Your task to perform on an android device: Do I have any events today? Image 0: 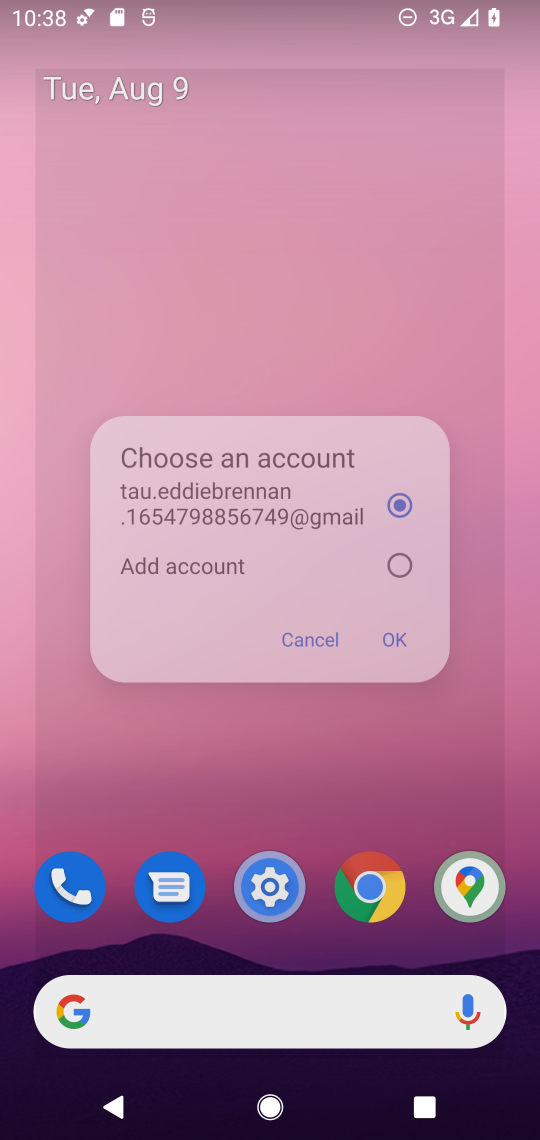
Step 0: drag from (255, 817) to (255, 238)
Your task to perform on an android device: Do I have any events today? Image 1: 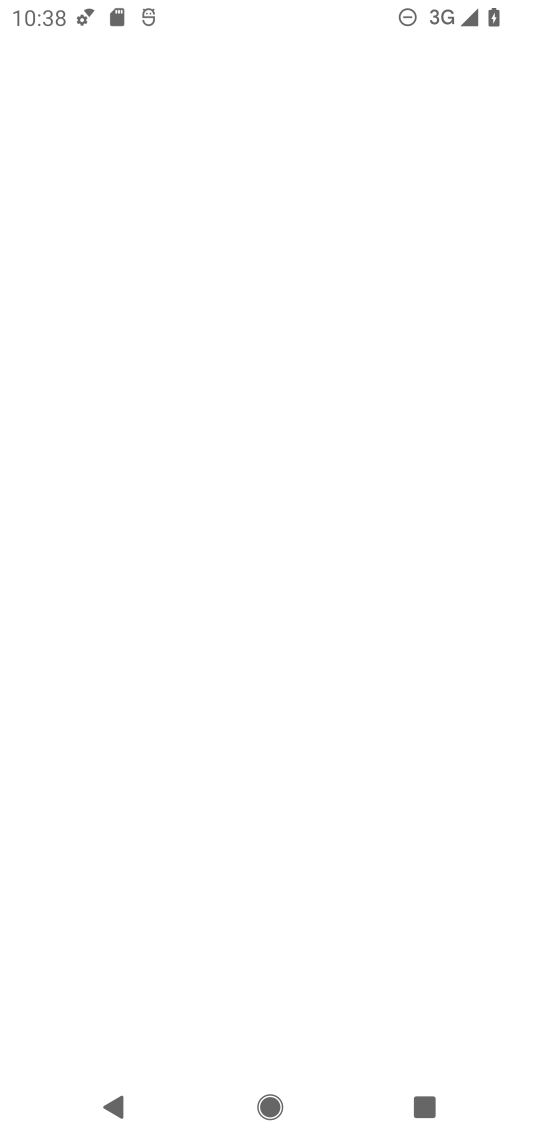
Step 1: press home button
Your task to perform on an android device: Do I have any events today? Image 2: 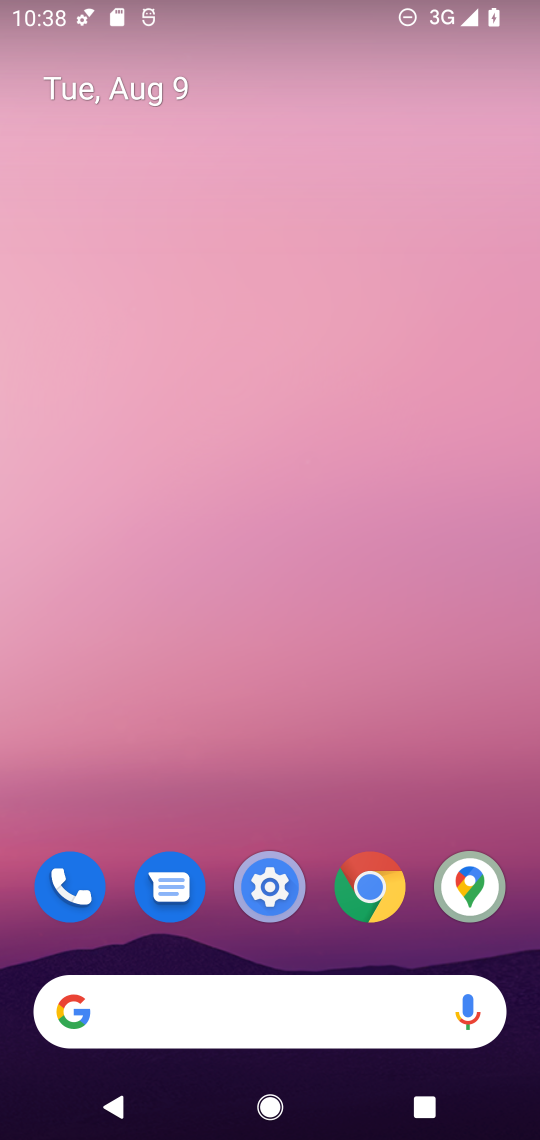
Step 2: drag from (368, 739) to (326, 20)
Your task to perform on an android device: Do I have any events today? Image 3: 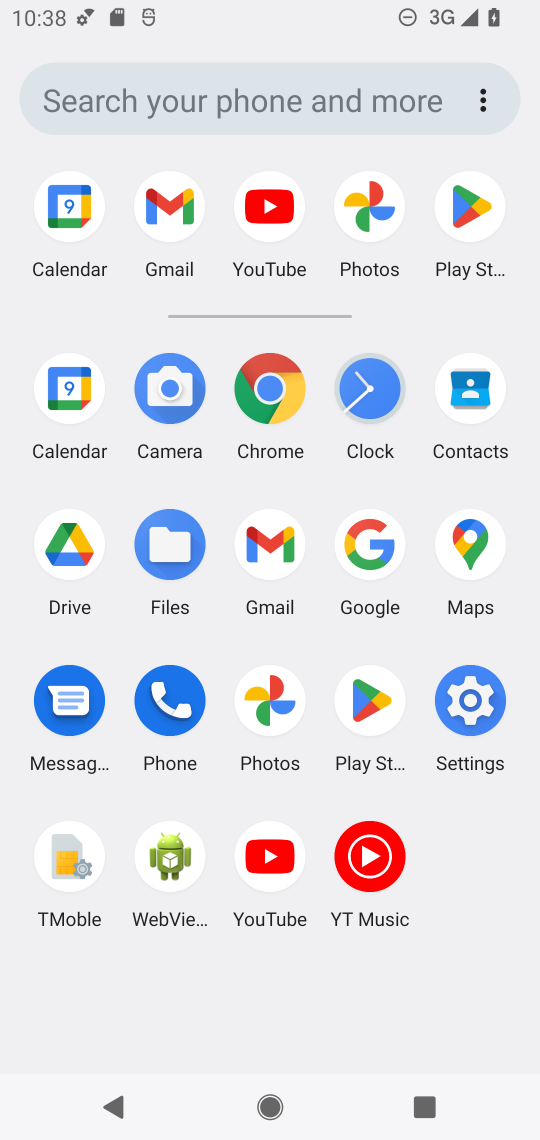
Step 3: click (80, 378)
Your task to perform on an android device: Do I have any events today? Image 4: 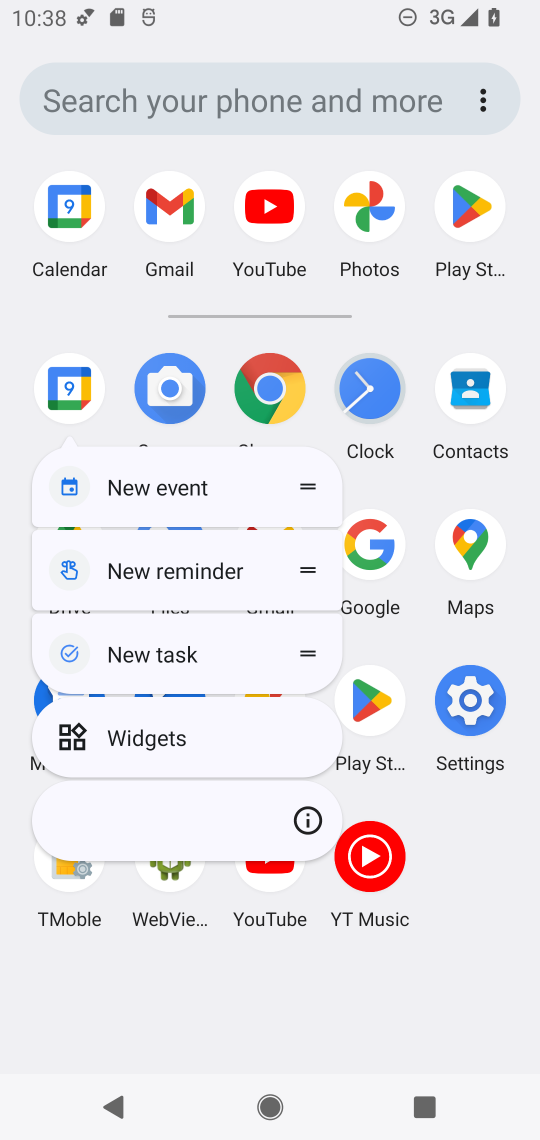
Step 4: click (80, 378)
Your task to perform on an android device: Do I have any events today? Image 5: 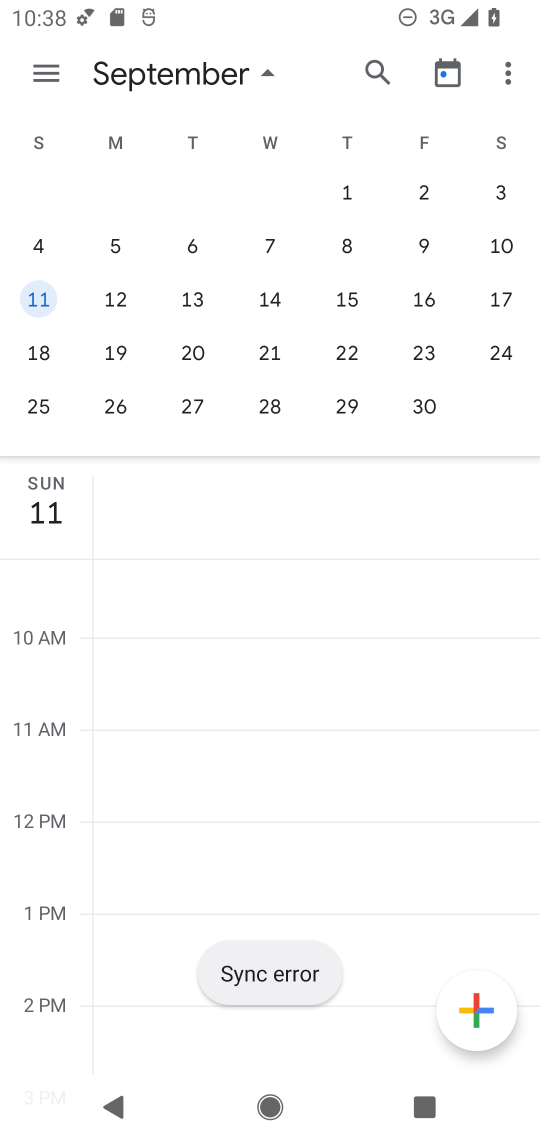
Step 5: click (40, 312)
Your task to perform on an android device: Do I have any events today? Image 6: 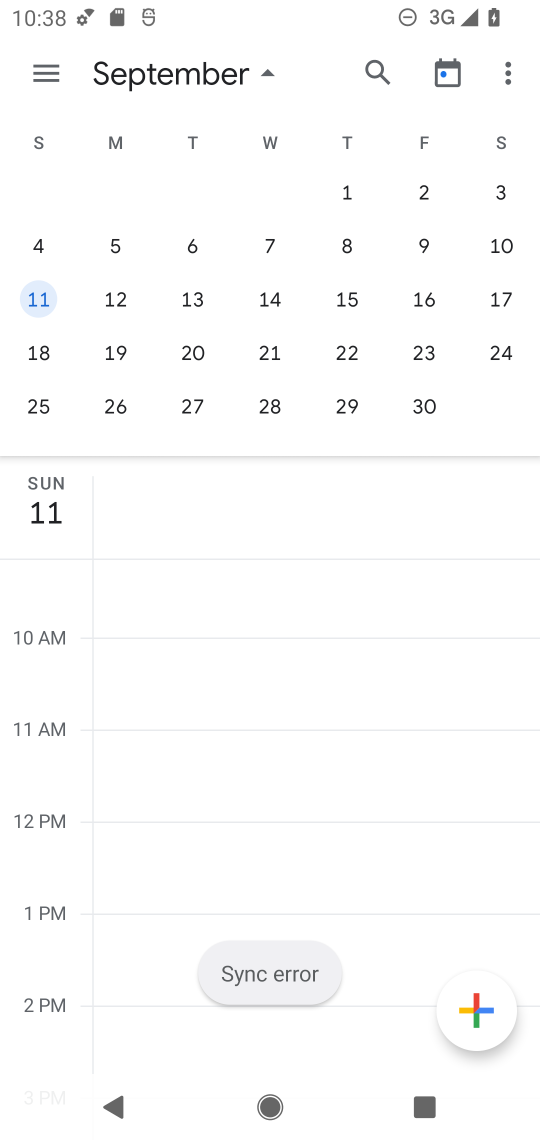
Step 6: task complete